Your task to perform on an android device: open chrome and create a bookmark for the current page Image 0: 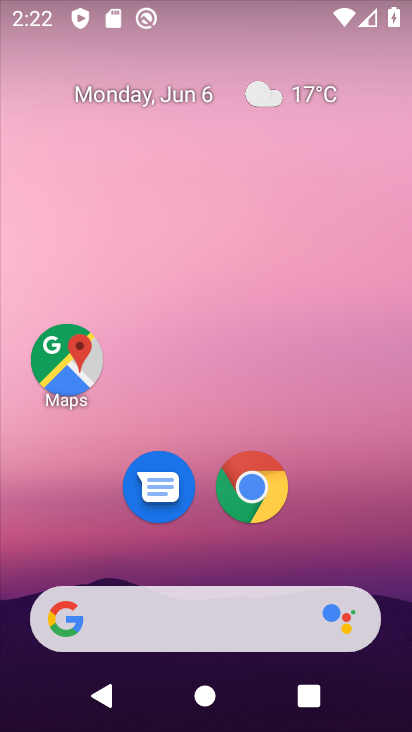
Step 0: click (255, 497)
Your task to perform on an android device: open chrome and create a bookmark for the current page Image 1: 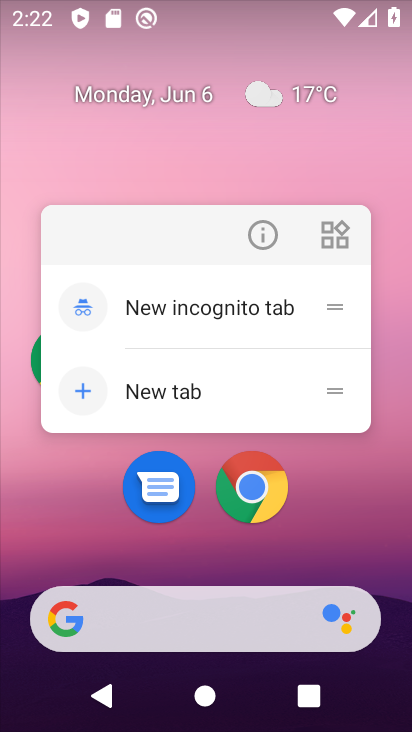
Step 1: click (252, 498)
Your task to perform on an android device: open chrome and create a bookmark for the current page Image 2: 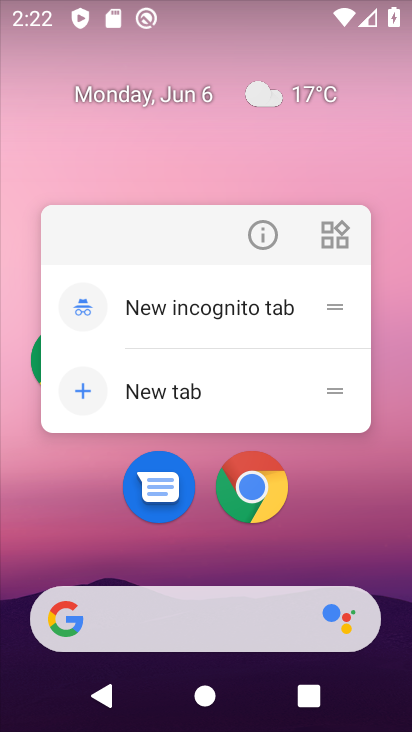
Step 2: click (254, 512)
Your task to perform on an android device: open chrome and create a bookmark for the current page Image 3: 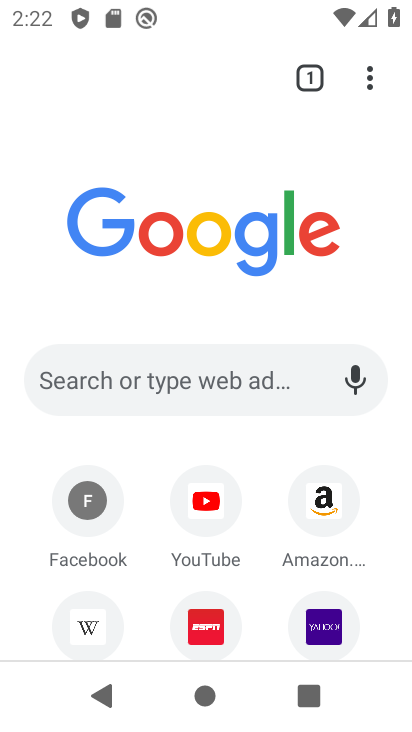
Step 3: task complete